Your task to perform on an android device: set the stopwatch Image 0: 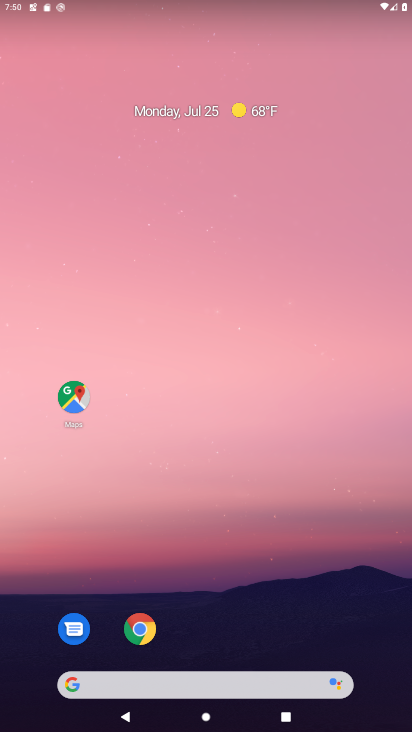
Step 0: drag from (228, 637) to (201, 217)
Your task to perform on an android device: set the stopwatch Image 1: 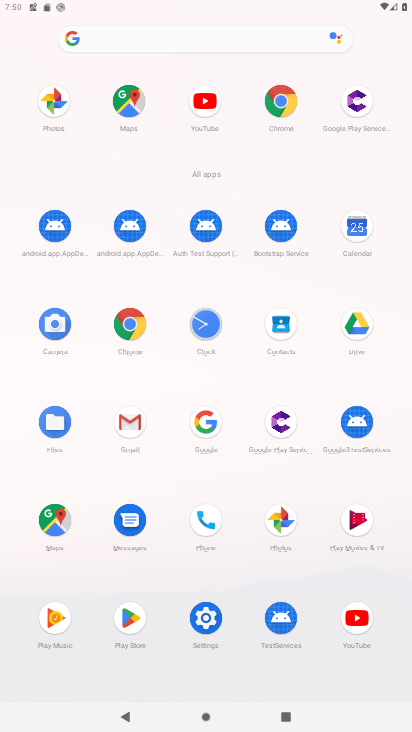
Step 1: click (216, 317)
Your task to perform on an android device: set the stopwatch Image 2: 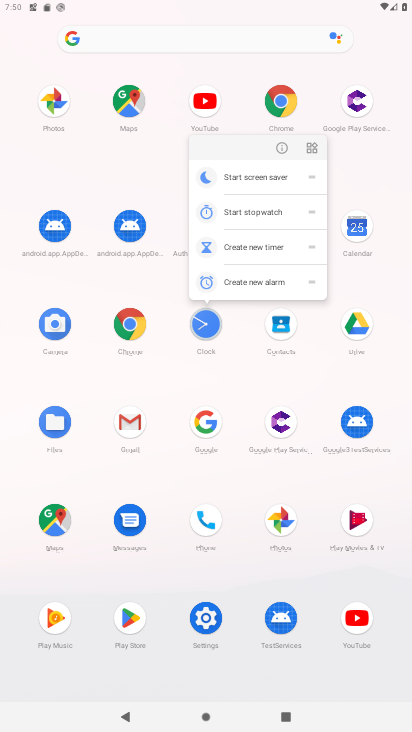
Step 2: click (199, 323)
Your task to perform on an android device: set the stopwatch Image 3: 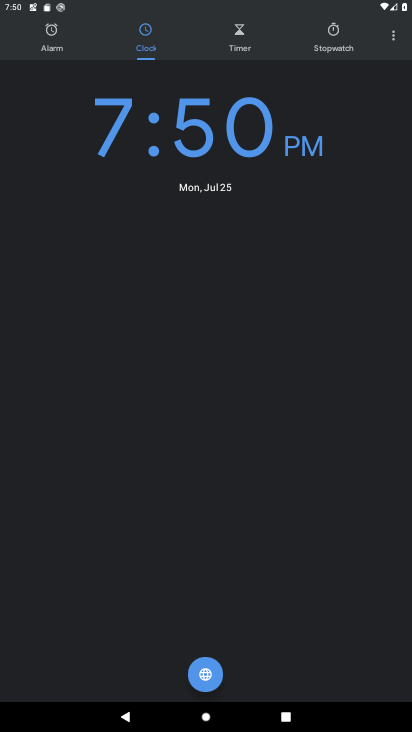
Step 3: click (326, 28)
Your task to perform on an android device: set the stopwatch Image 4: 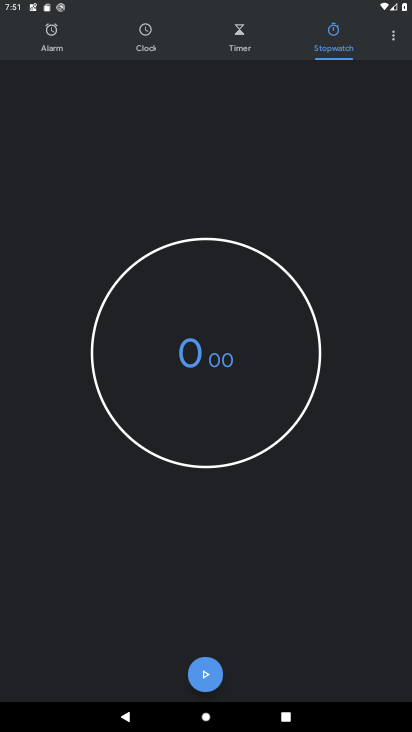
Step 4: task complete